Your task to perform on an android device: Search for vegetarian restaurants on Maps Image 0: 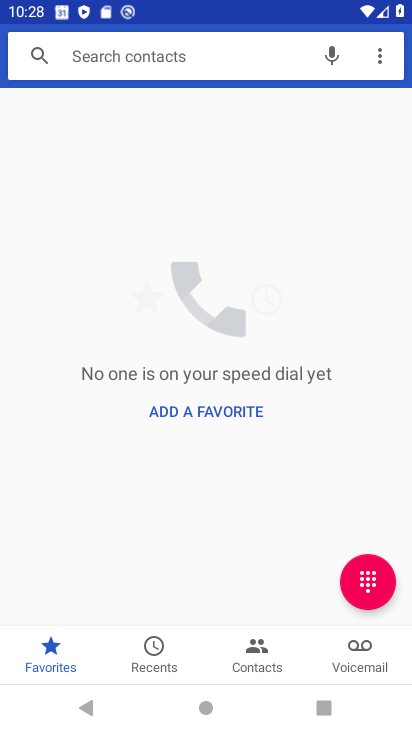
Step 0: press home button
Your task to perform on an android device: Search for vegetarian restaurants on Maps Image 1: 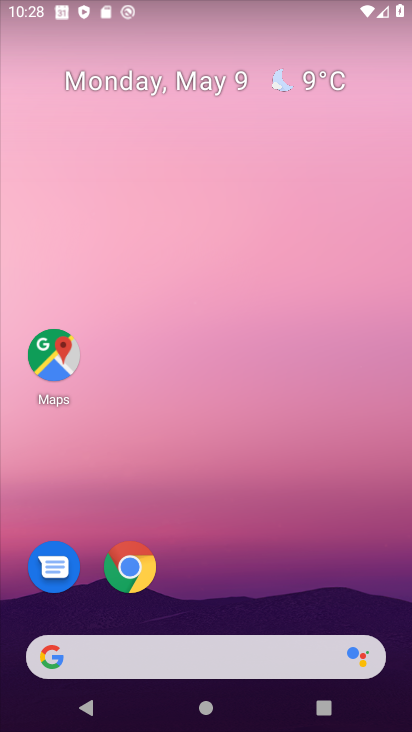
Step 1: click (54, 349)
Your task to perform on an android device: Search for vegetarian restaurants on Maps Image 2: 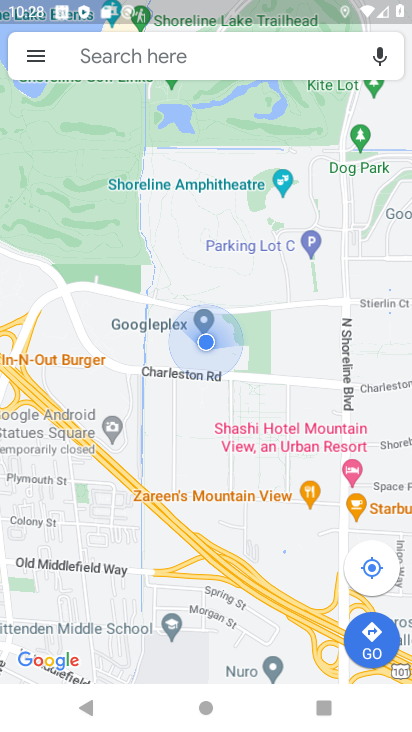
Step 2: click (149, 44)
Your task to perform on an android device: Search for vegetarian restaurants on Maps Image 3: 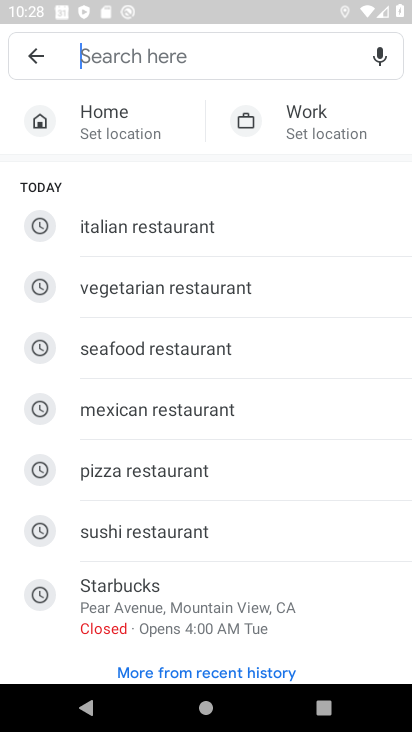
Step 3: click (172, 291)
Your task to perform on an android device: Search for vegetarian restaurants on Maps Image 4: 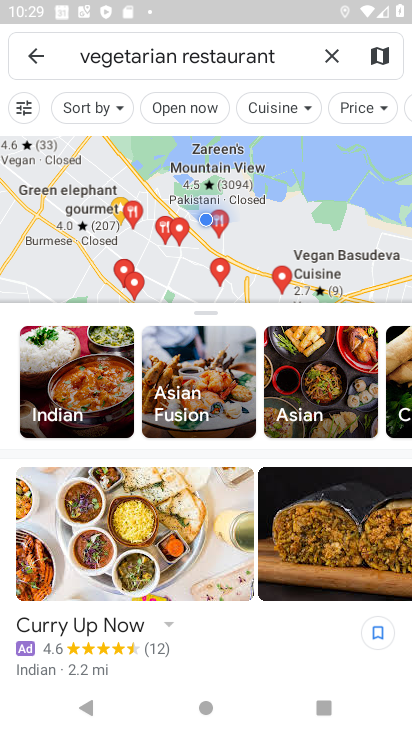
Step 4: task complete